Your task to perform on an android device: uninstall "DoorDash - Food Delivery" Image 0: 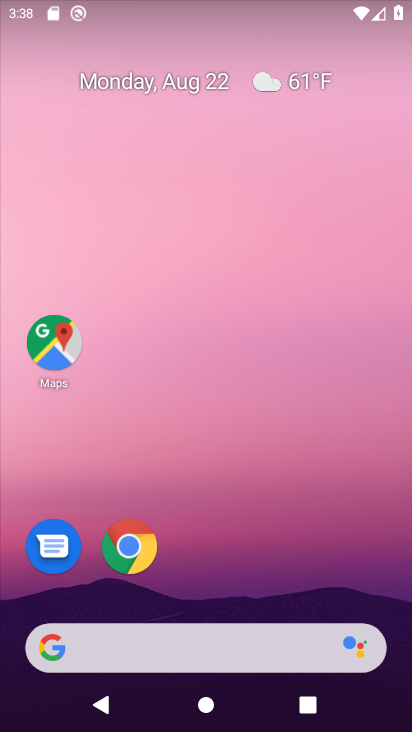
Step 0: drag from (383, 592) to (340, 95)
Your task to perform on an android device: uninstall "DoorDash - Food Delivery" Image 1: 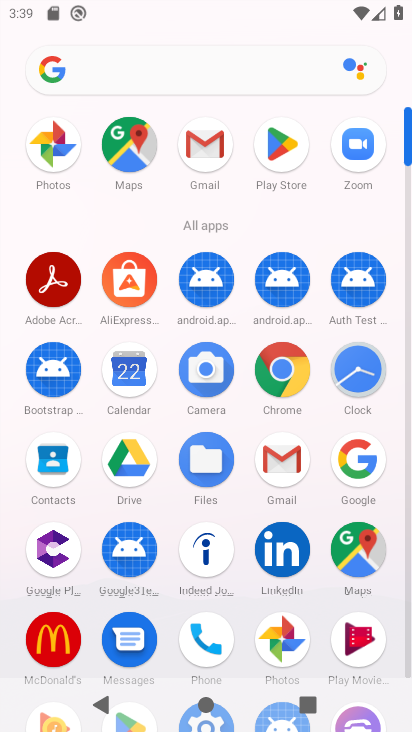
Step 1: drag from (246, 605) to (222, 233)
Your task to perform on an android device: uninstall "DoorDash - Food Delivery" Image 2: 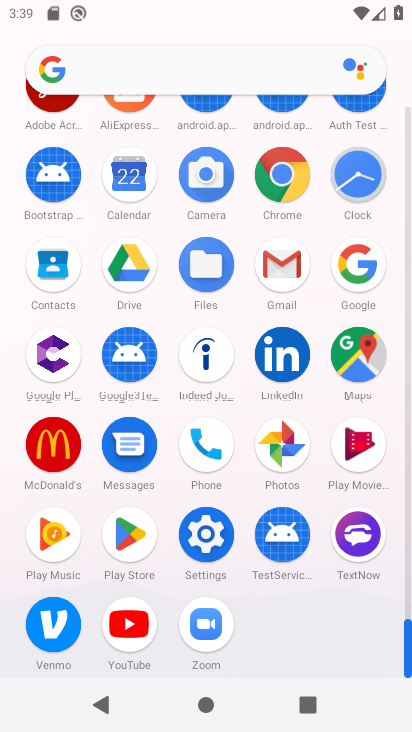
Step 2: click (132, 532)
Your task to perform on an android device: uninstall "DoorDash - Food Delivery" Image 3: 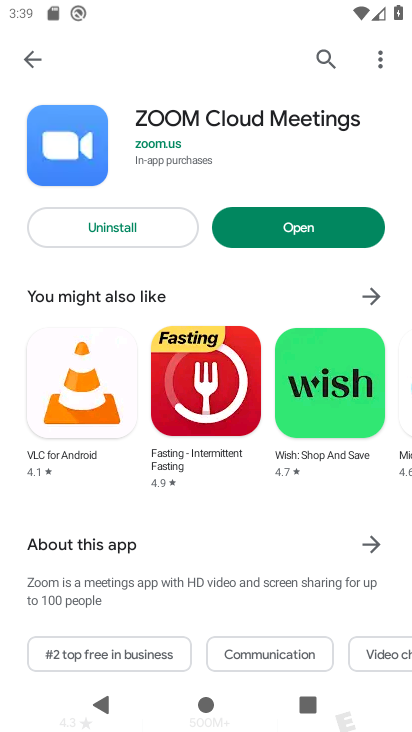
Step 3: click (321, 56)
Your task to perform on an android device: uninstall "DoorDash - Food Delivery" Image 4: 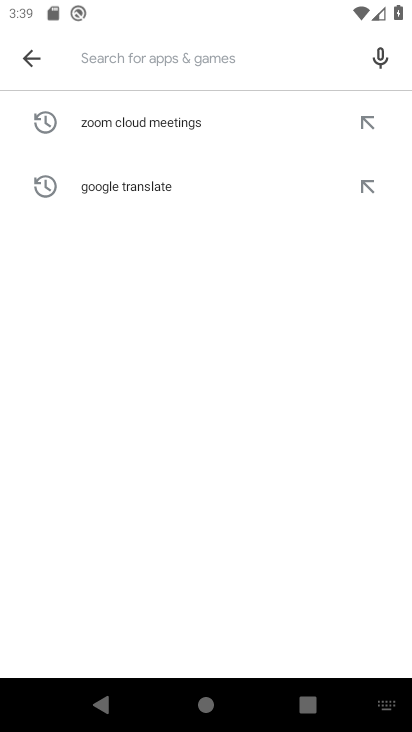
Step 4: type "DoorDash - Food Delivery"
Your task to perform on an android device: uninstall "DoorDash - Food Delivery" Image 5: 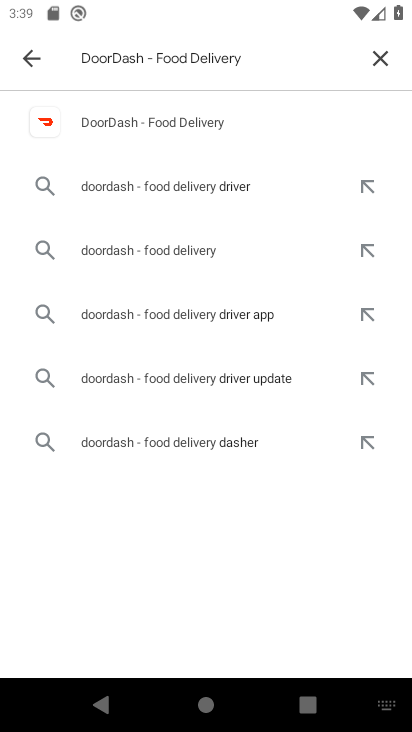
Step 5: click (139, 121)
Your task to perform on an android device: uninstall "DoorDash - Food Delivery" Image 6: 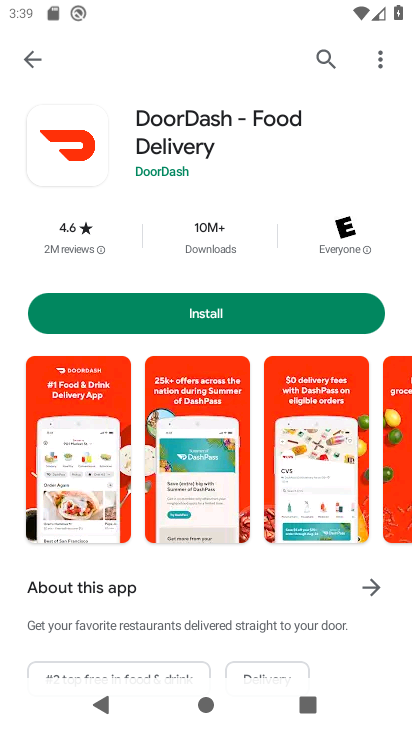
Step 6: task complete